Your task to perform on an android device: Open Google Chrome and click the shortcut for Amazon.com Image 0: 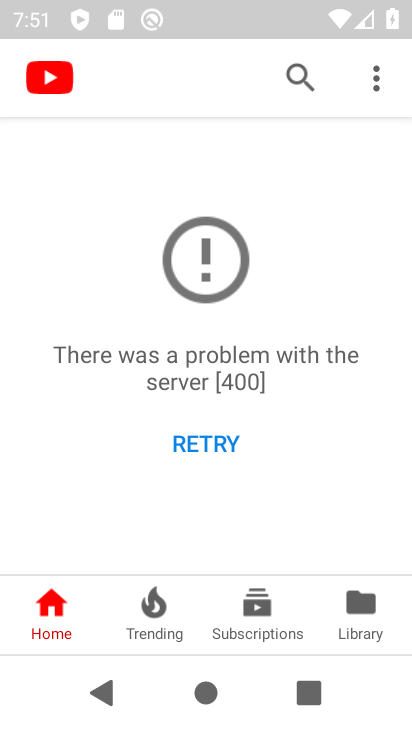
Step 0: press back button
Your task to perform on an android device: Open Google Chrome and click the shortcut for Amazon.com Image 1: 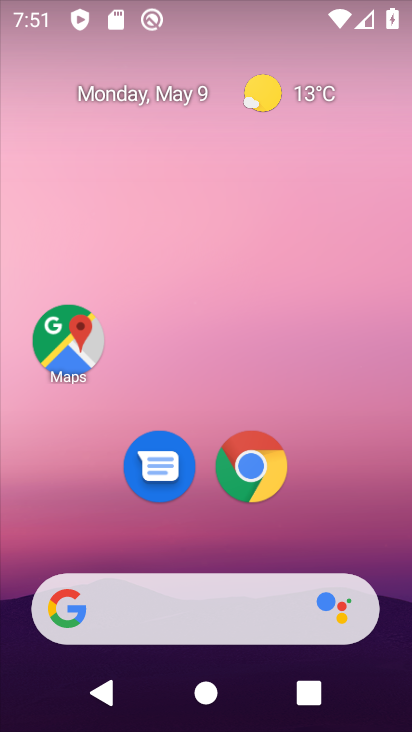
Step 1: click (253, 467)
Your task to perform on an android device: Open Google Chrome and click the shortcut for Amazon.com Image 2: 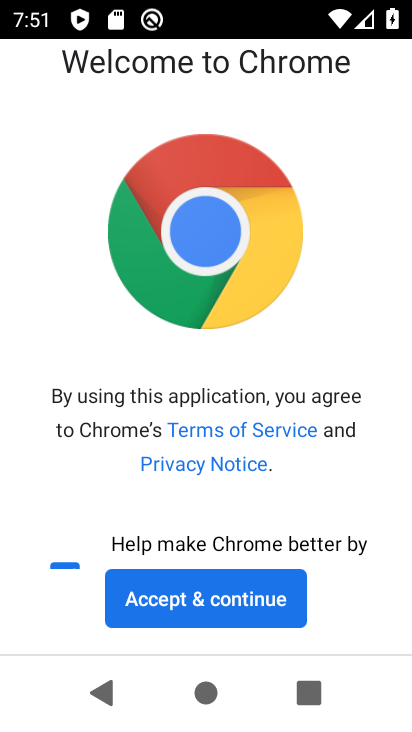
Step 2: click (175, 599)
Your task to perform on an android device: Open Google Chrome and click the shortcut for Amazon.com Image 3: 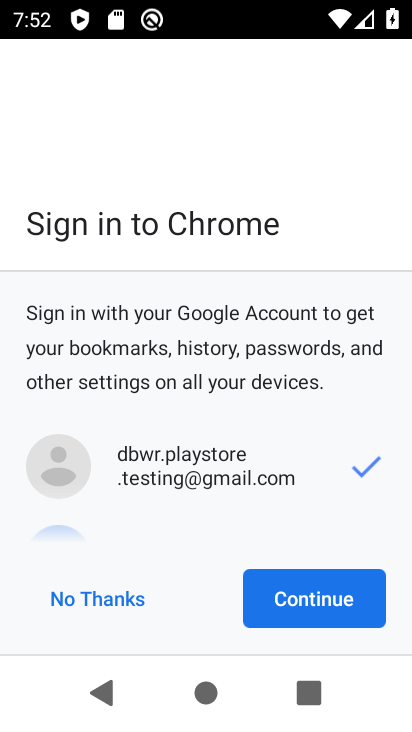
Step 3: click (302, 600)
Your task to perform on an android device: Open Google Chrome and click the shortcut for Amazon.com Image 4: 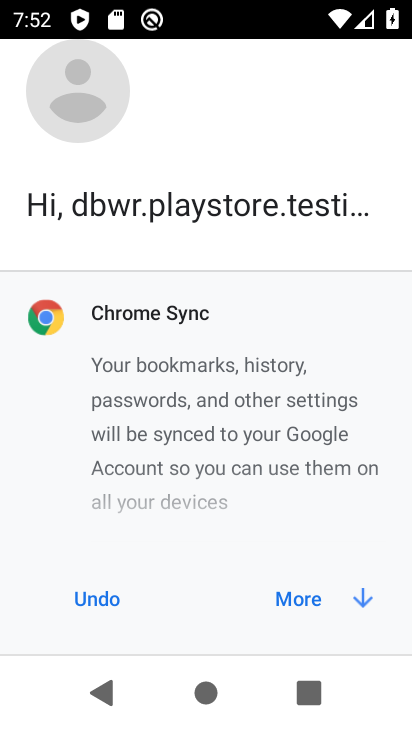
Step 4: click (302, 600)
Your task to perform on an android device: Open Google Chrome and click the shortcut for Amazon.com Image 5: 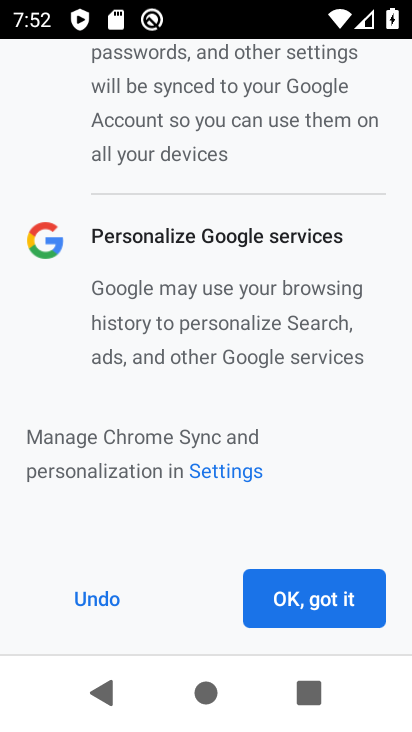
Step 5: click (302, 600)
Your task to perform on an android device: Open Google Chrome and click the shortcut for Amazon.com Image 6: 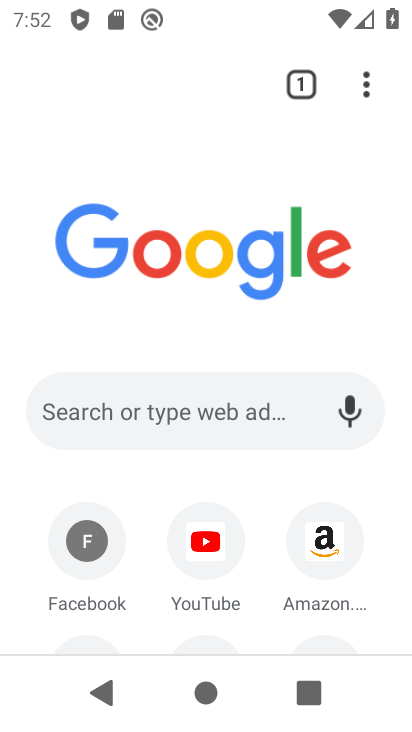
Step 6: click (312, 543)
Your task to perform on an android device: Open Google Chrome and click the shortcut for Amazon.com Image 7: 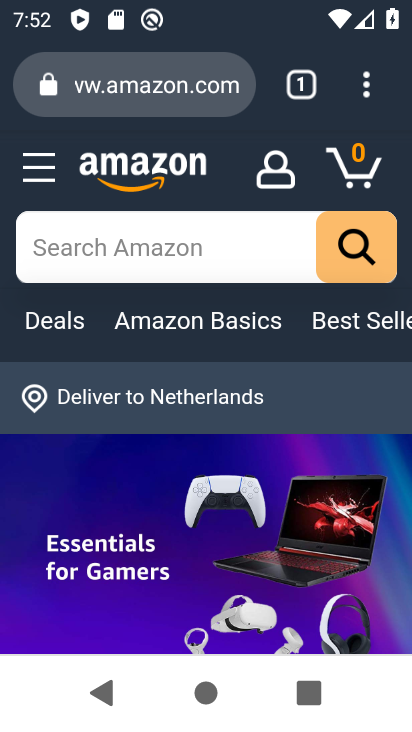
Step 7: task complete